Your task to perform on an android device: uninstall "Pluto TV - Live TV and Movies" Image 0: 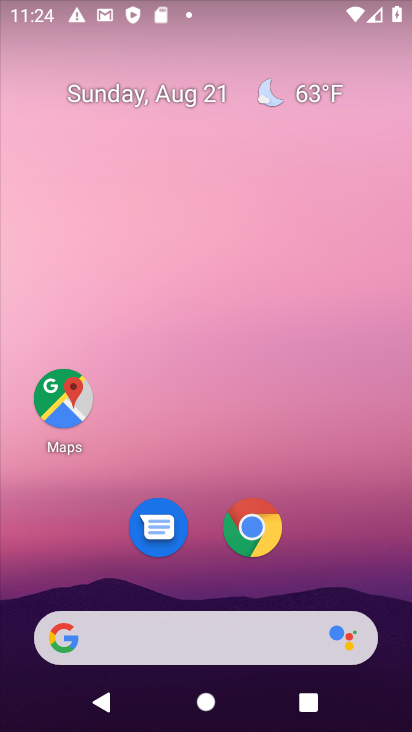
Step 0: drag from (291, 508) to (404, 116)
Your task to perform on an android device: uninstall "Pluto TV - Live TV and Movies" Image 1: 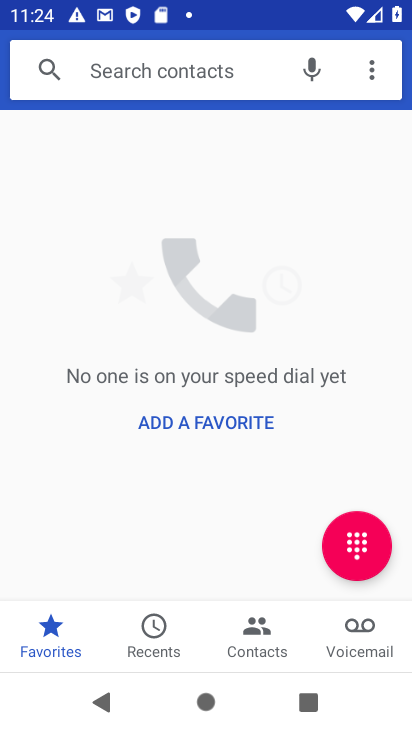
Step 1: press home button
Your task to perform on an android device: uninstall "Pluto TV - Live TV and Movies" Image 2: 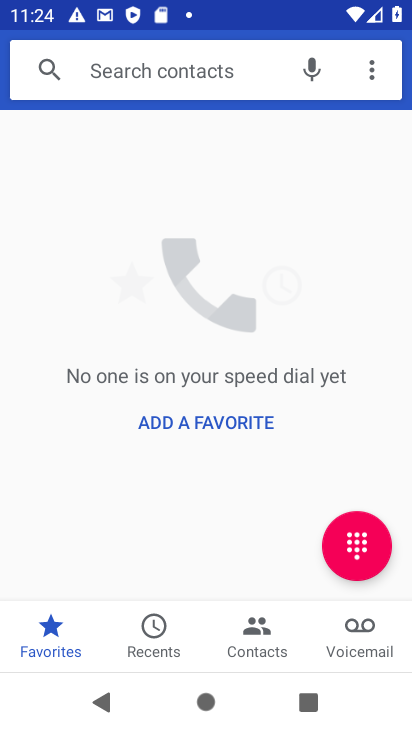
Step 2: drag from (404, 116) to (410, 461)
Your task to perform on an android device: uninstall "Pluto TV - Live TV and Movies" Image 3: 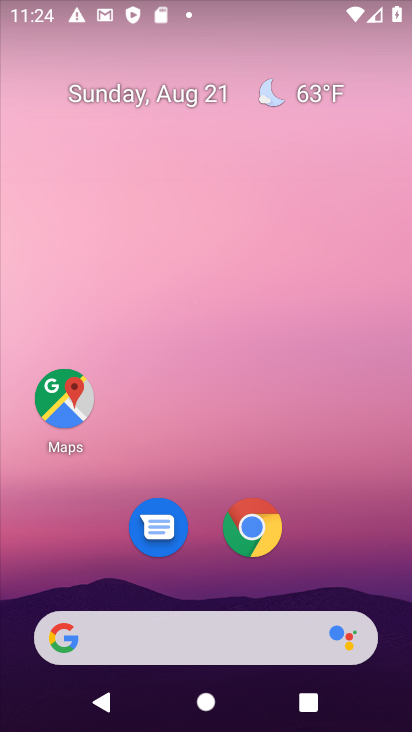
Step 3: drag from (290, 595) to (399, 47)
Your task to perform on an android device: uninstall "Pluto TV - Live TV and Movies" Image 4: 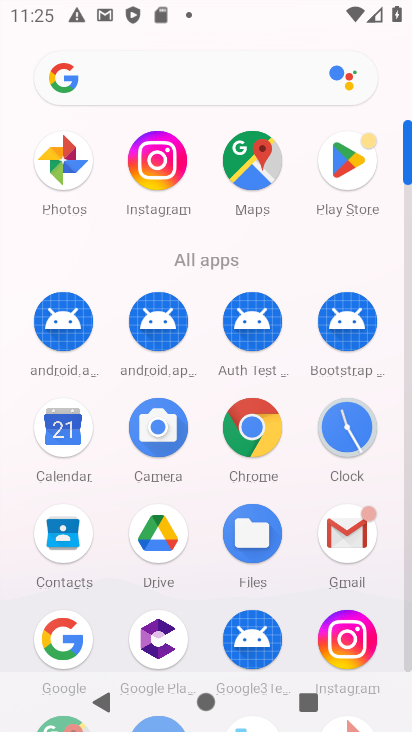
Step 4: click (332, 168)
Your task to perform on an android device: uninstall "Pluto TV - Live TV and Movies" Image 5: 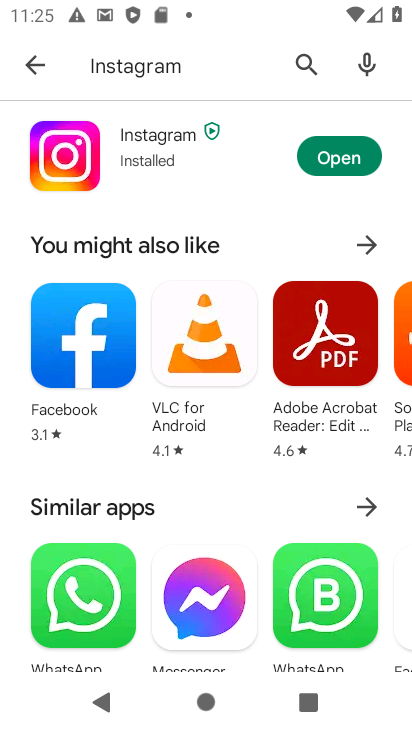
Step 5: press back button
Your task to perform on an android device: uninstall "Pluto TV - Live TV and Movies" Image 6: 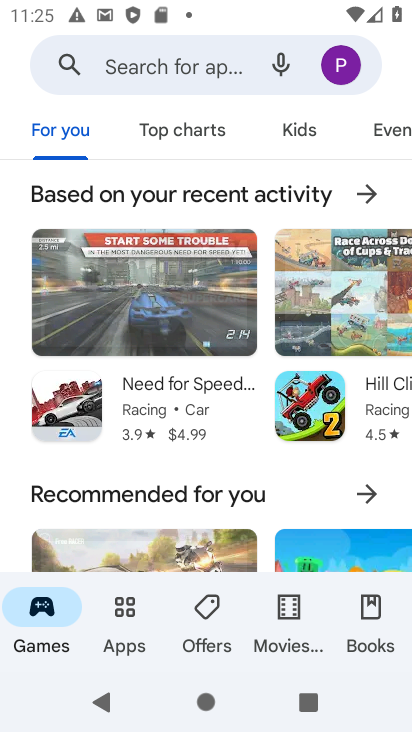
Step 6: click (199, 64)
Your task to perform on an android device: uninstall "Pluto TV - Live TV and Movies" Image 7: 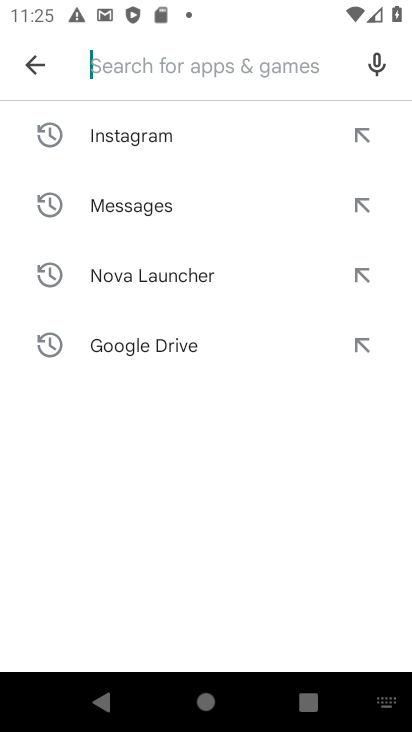
Step 7: type "Pluto TV - Live TV and Movies"
Your task to perform on an android device: uninstall "Pluto TV - Live TV and Movies" Image 8: 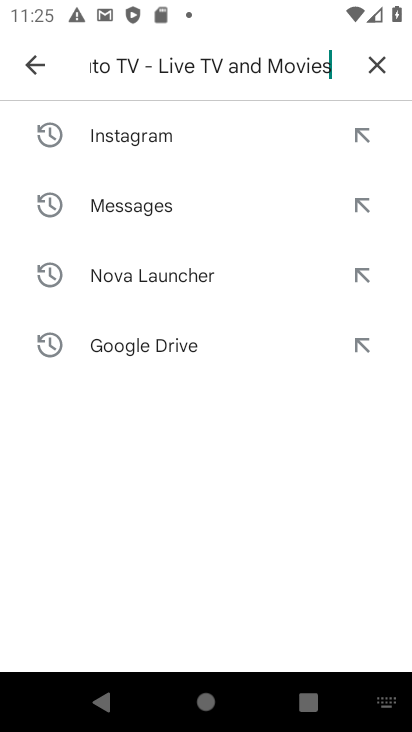
Step 8: press enter
Your task to perform on an android device: uninstall "Pluto TV - Live TV and Movies" Image 9: 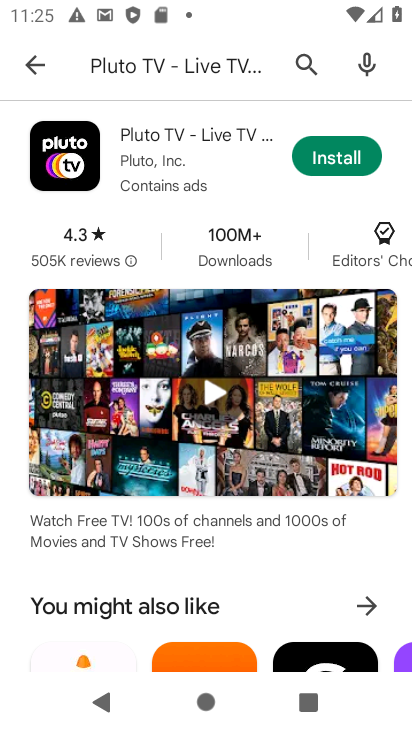
Step 9: task complete